Your task to perform on an android device: Search for Italian restaurants on Maps Image 0: 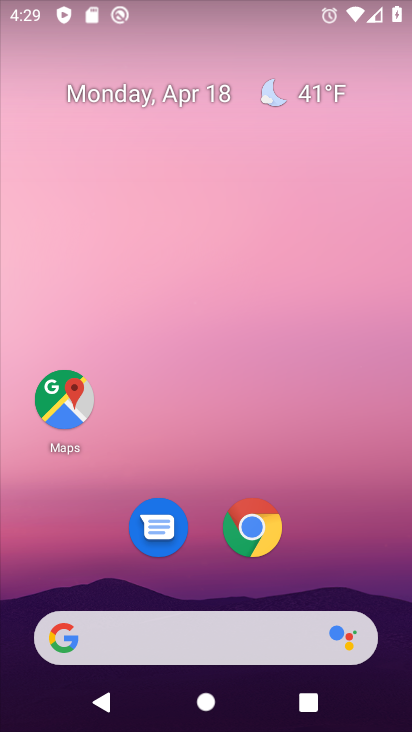
Step 0: drag from (340, 577) to (371, 132)
Your task to perform on an android device: Search for Italian restaurants on Maps Image 1: 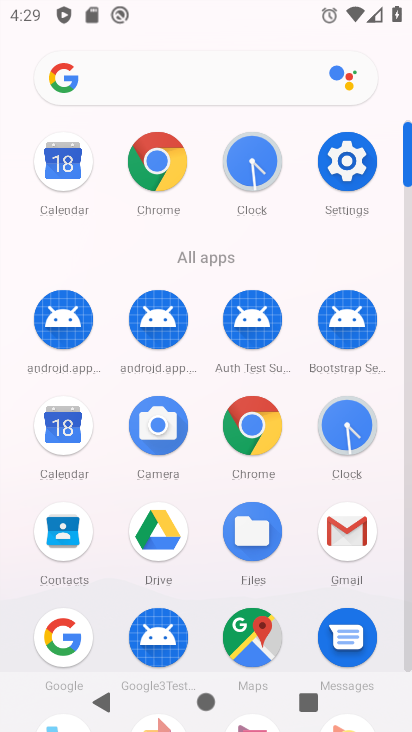
Step 1: click (240, 630)
Your task to perform on an android device: Search for Italian restaurants on Maps Image 2: 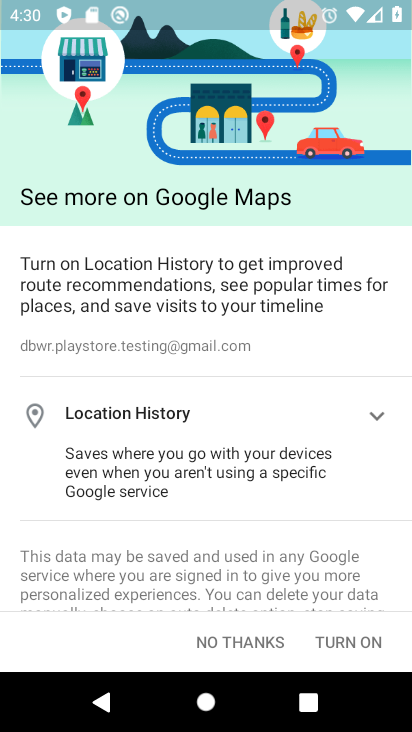
Step 2: click (220, 636)
Your task to perform on an android device: Search for Italian restaurants on Maps Image 3: 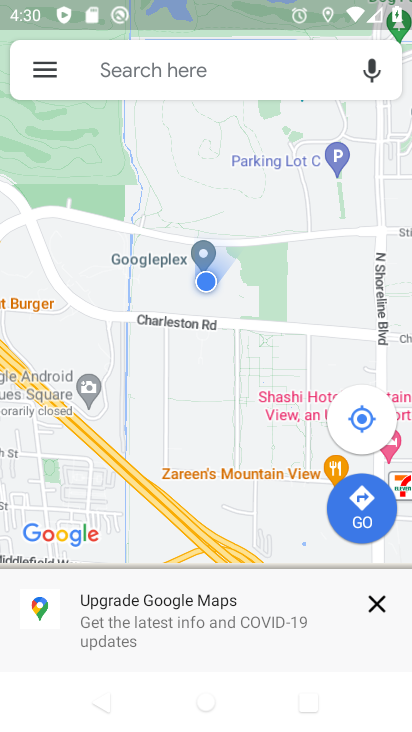
Step 3: click (234, 61)
Your task to perform on an android device: Search for Italian restaurants on Maps Image 4: 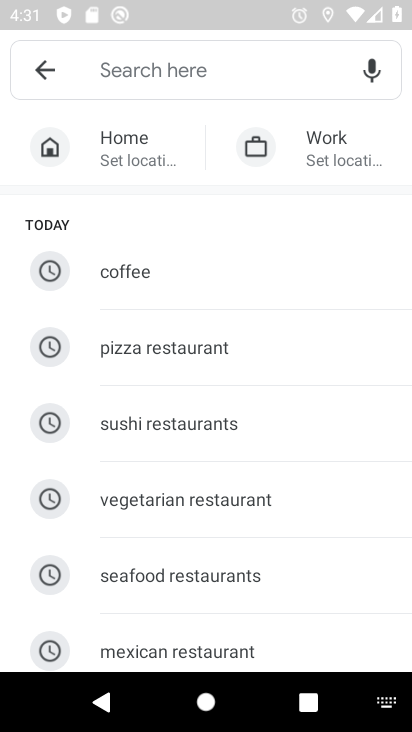
Step 4: type "Italian restaurants"
Your task to perform on an android device: Search for Italian restaurants on Maps Image 5: 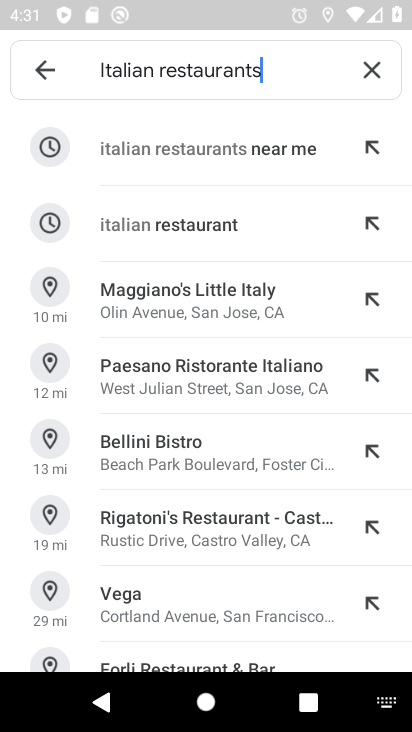
Step 5: press enter
Your task to perform on an android device: Search for Italian restaurants on Maps Image 6: 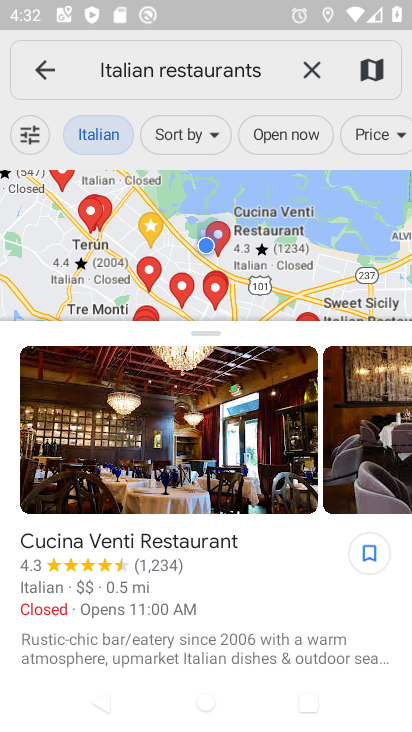
Step 6: task complete